Your task to perform on an android device: check data usage Image 0: 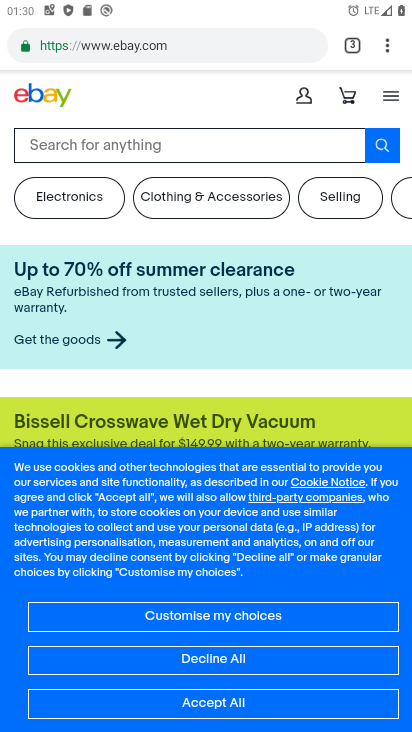
Step 0: click (207, 418)
Your task to perform on an android device: check data usage Image 1: 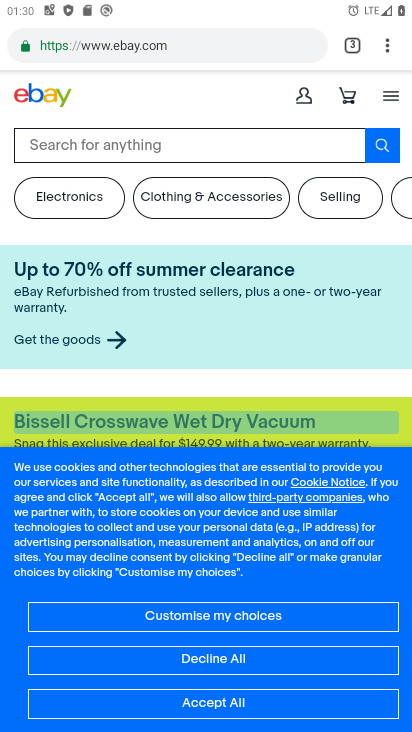
Step 1: drag from (156, 70) to (196, 407)
Your task to perform on an android device: check data usage Image 2: 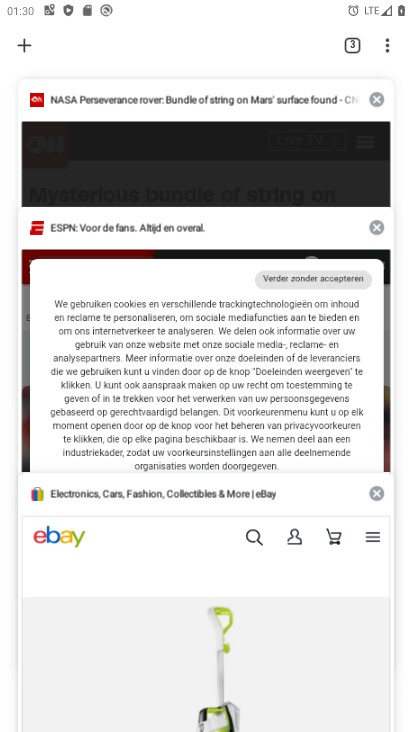
Step 2: drag from (165, 9) to (155, 487)
Your task to perform on an android device: check data usage Image 3: 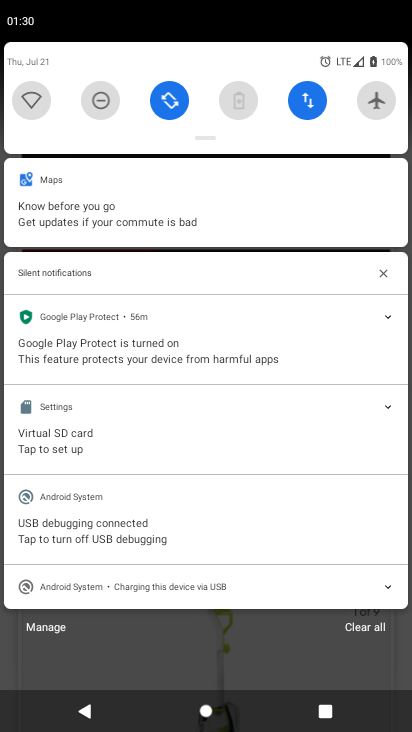
Step 3: click (317, 104)
Your task to perform on an android device: check data usage Image 4: 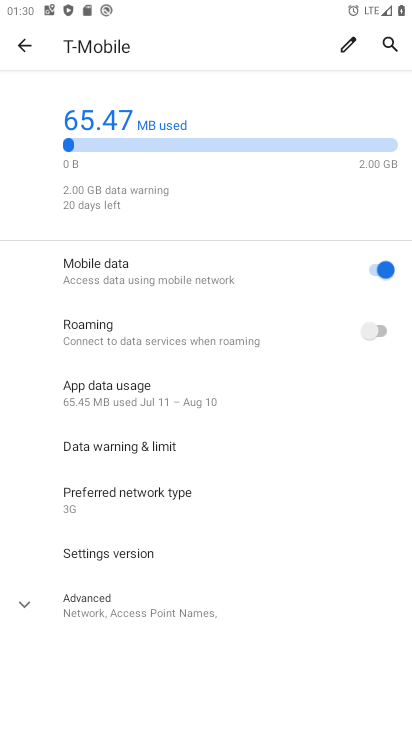
Step 4: task complete